Your task to perform on an android device: toggle show notifications on the lock screen Image 0: 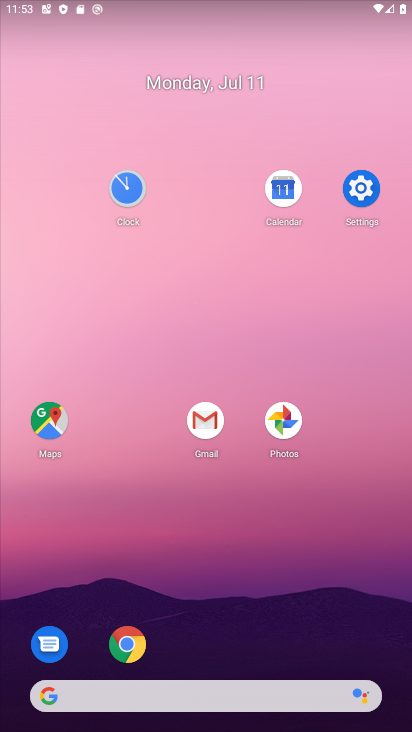
Step 0: click (372, 200)
Your task to perform on an android device: toggle show notifications on the lock screen Image 1: 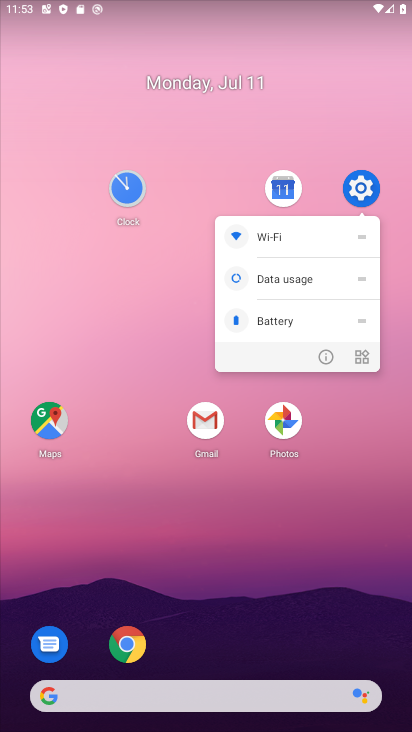
Step 1: click (357, 192)
Your task to perform on an android device: toggle show notifications on the lock screen Image 2: 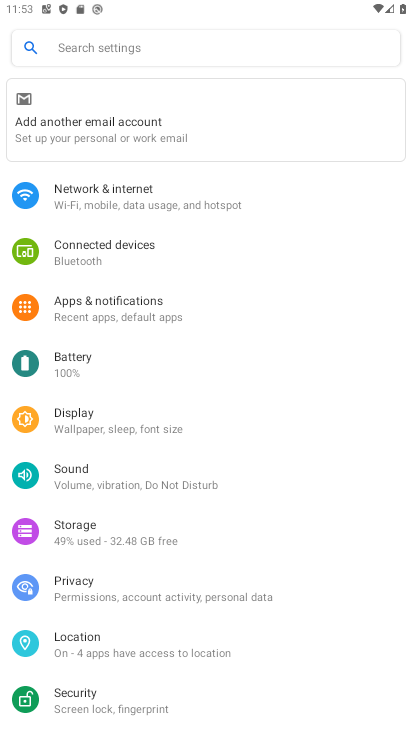
Step 2: click (236, 310)
Your task to perform on an android device: toggle show notifications on the lock screen Image 3: 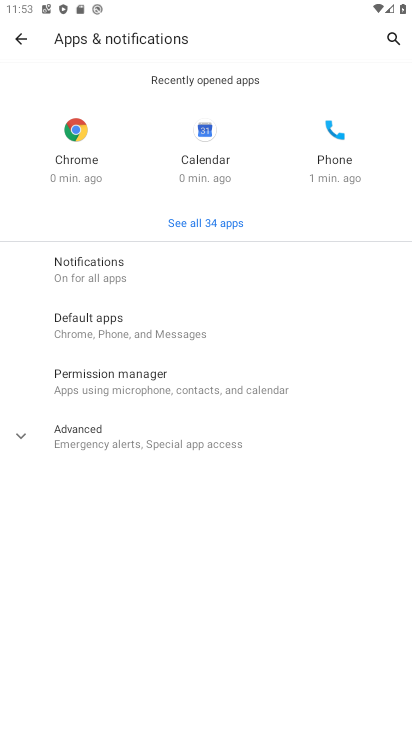
Step 3: click (210, 283)
Your task to perform on an android device: toggle show notifications on the lock screen Image 4: 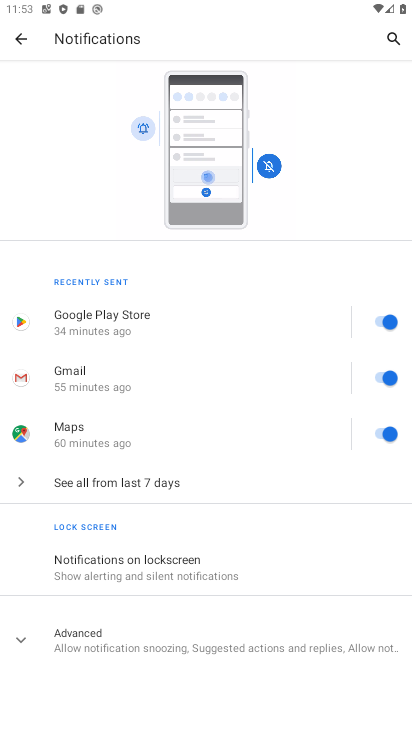
Step 4: click (196, 586)
Your task to perform on an android device: toggle show notifications on the lock screen Image 5: 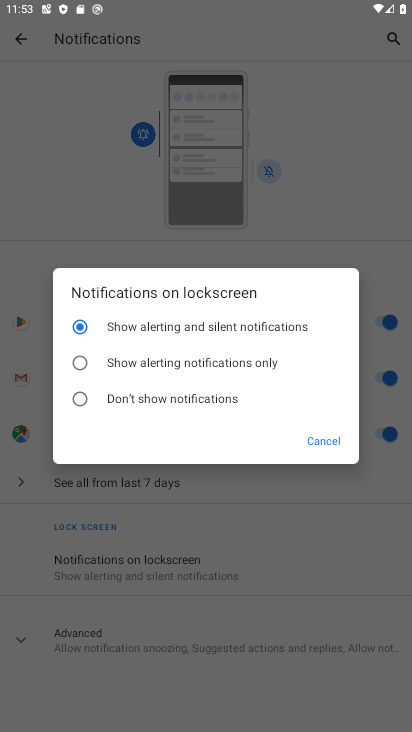
Step 5: click (109, 367)
Your task to perform on an android device: toggle show notifications on the lock screen Image 6: 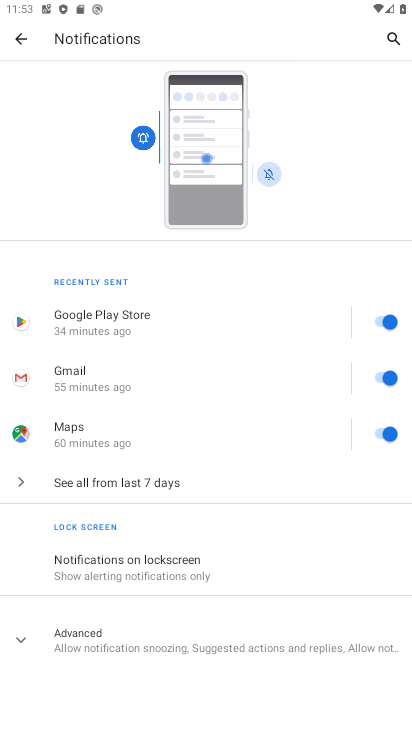
Step 6: task complete